Your task to perform on an android device: Go to internet settings Image 0: 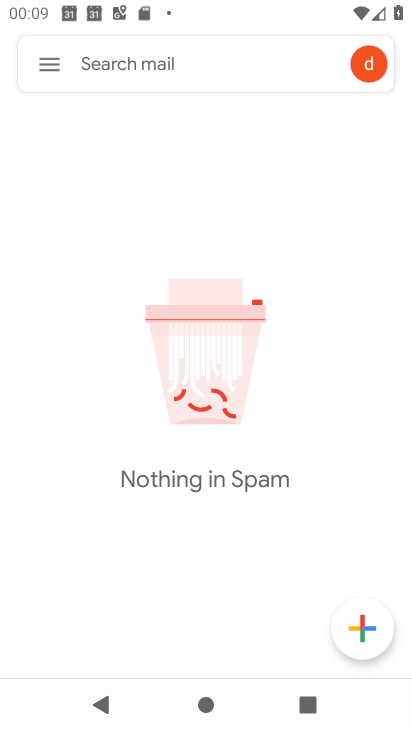
Step 0: press home button
Your task to perform on an android device: Go to internet settings Image 1: 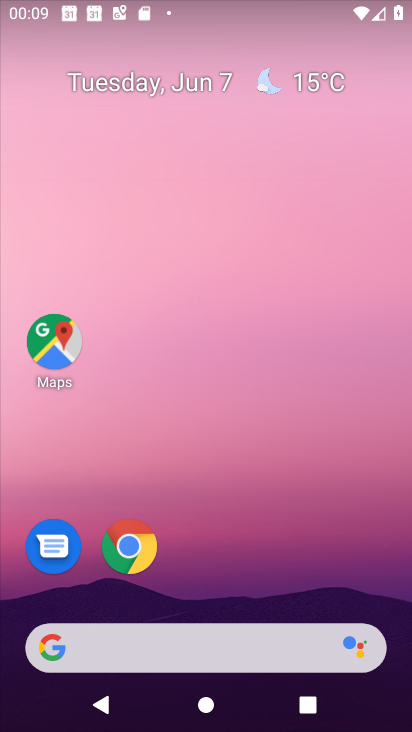
Step 1: drag from (293, 565) to (317, 432)
Your task to perform on an android device: Go to internet settings Image 2: 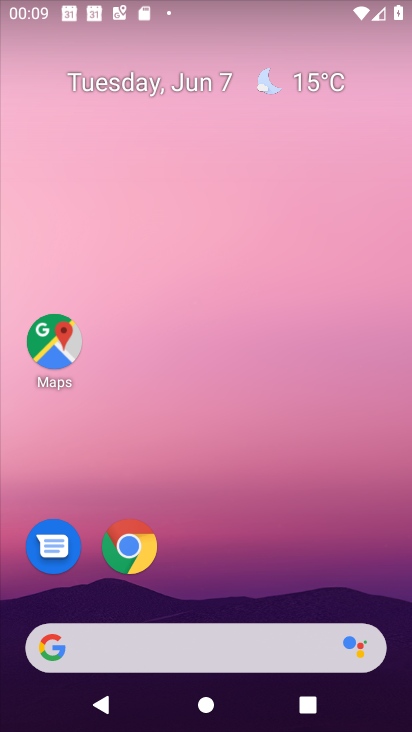
Step 2: drag from (210, 597) to (246, 19)
Your task to perform on an android device: Go to internet settings Image 3: 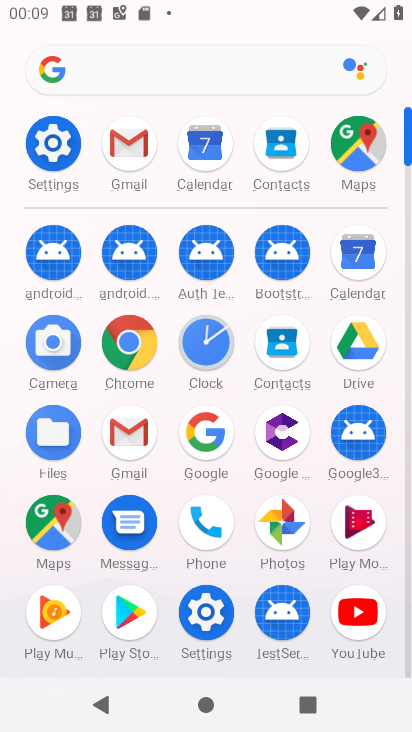
Step 3: click (60, 165)
Your task to perform on an android device: Go to internet settings Image 4: 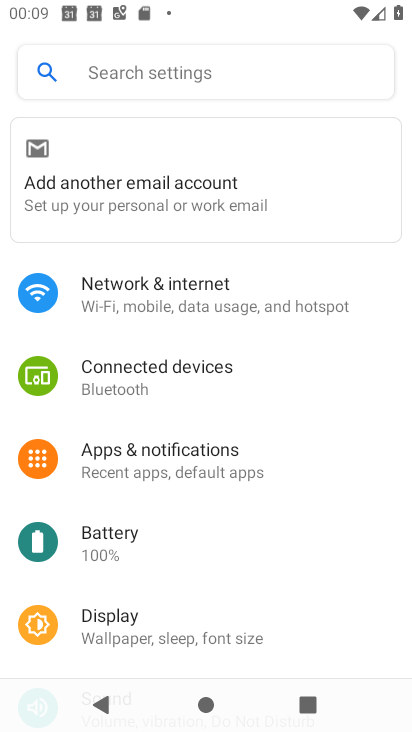
Step 4: click (101, 290)
Your task to perform on an android device: Go to internet settings Image 5: 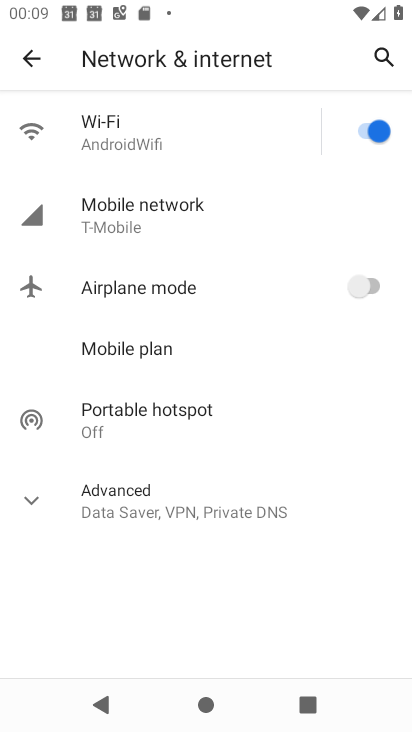
Step 5: task complete